Your task to perform on an android device: Open the calendar app, open the side menu, and click the "Day" option Image 0: 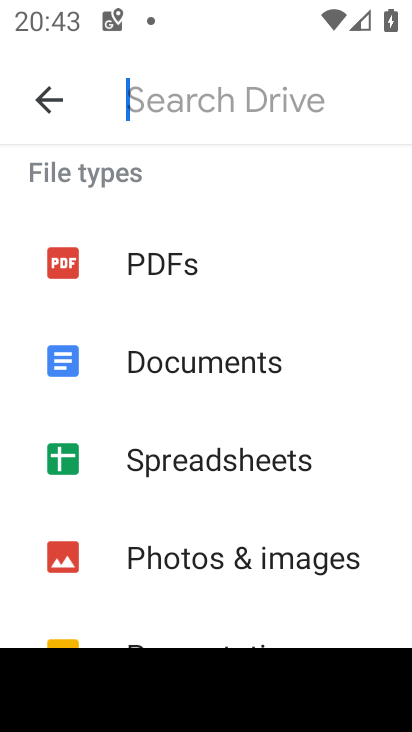
Step 0: press home button
Your task to perform on an android device: Open the calendar app, open the side menu, and click the "Day" option Image 1: 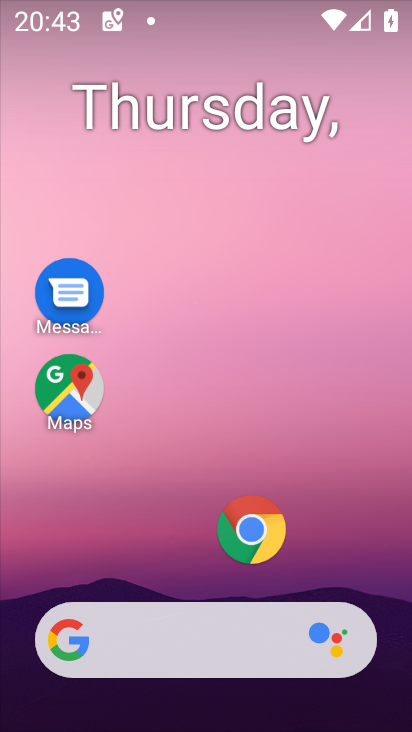
Step 1: click (212, 118)
Your task to perform on an android device: Open the calendar app, open the side menu, and click the "Day" option Image 2: 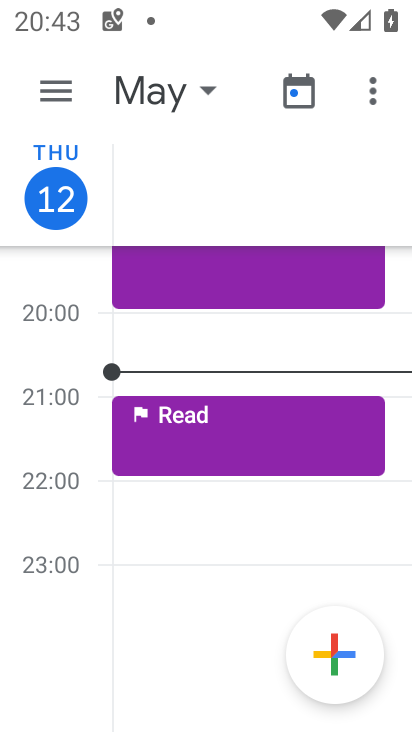
Step 2: click (71, 104)
Your task to perform on an android device: Open the calendar app, open the side menu, and click the "Day" option Image 3: 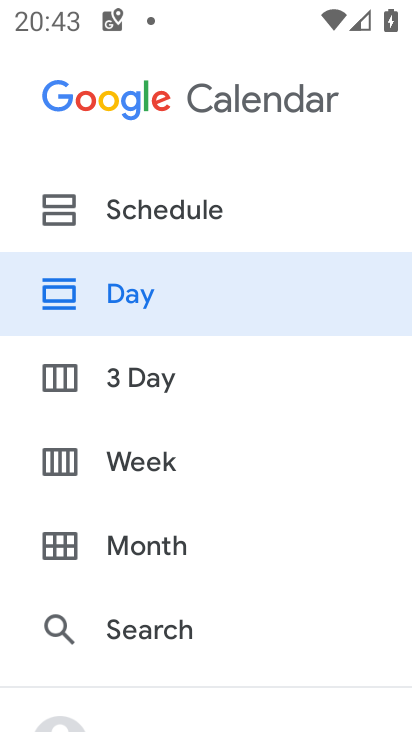
Step 3: click (314, 274)
Your task to perform on an android device: Open the calendar app, open the side menu, and click the "Day" option Image 4: 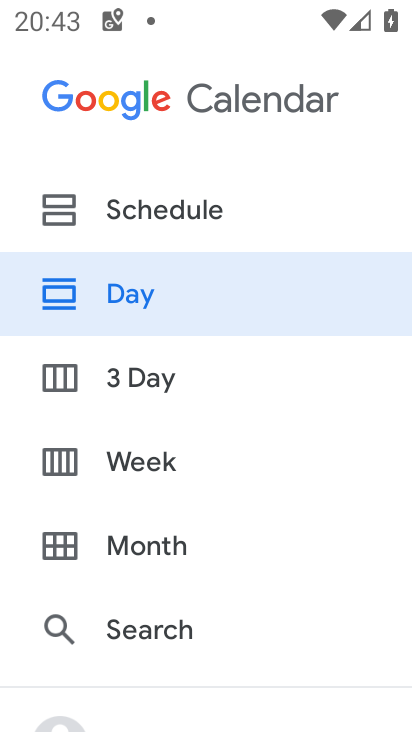
Step 4: click (197, 281)
Your task to perform on an android device: Open the calendar app, open the side menu, and click the "Day" option Image 5: 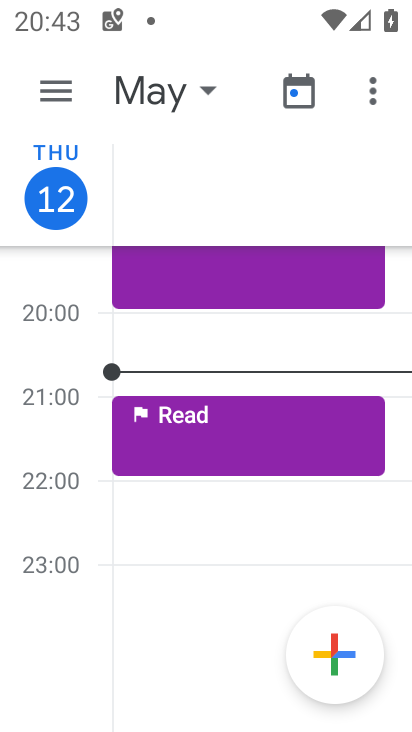
Step 5: task complete